Your task to perform on an android device: Find coffee shops on Maps Image 0: 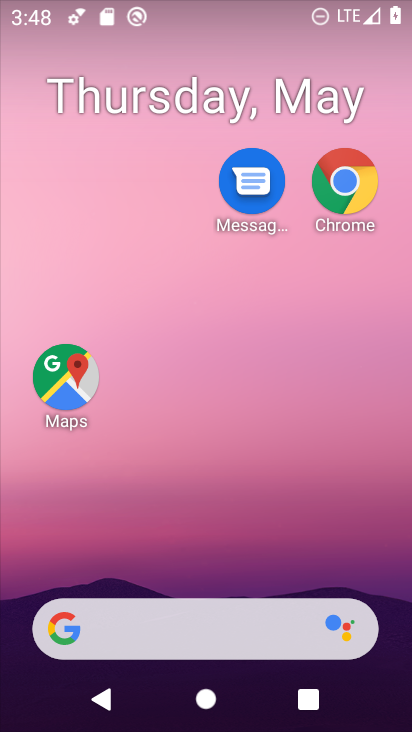
Step 0: drag from (286, 603) to (281, 4)
Your task to perform on an android device: Find coffee shops on Maps Image 1: 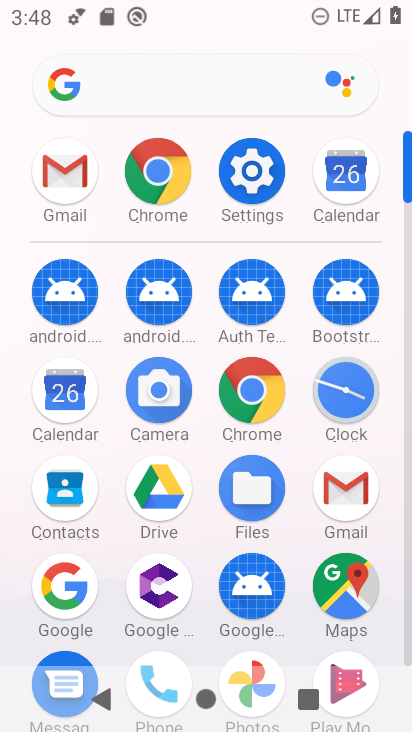
Step 1: click (351, 579)
Your task to perform on an android device: Find coffee shops on Maps Image 2: 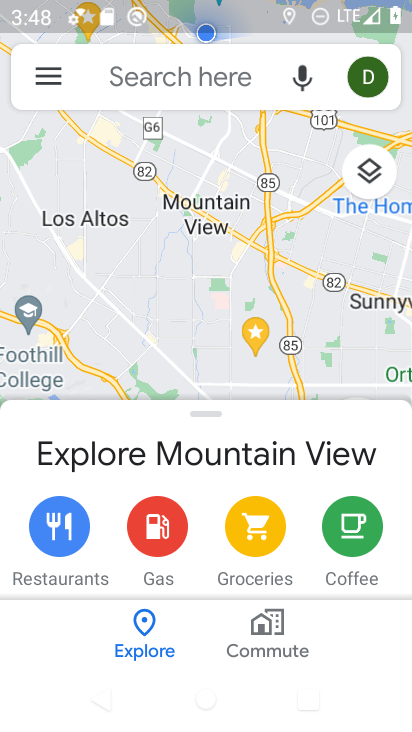
Step 2: click (200, 71)
Your task to perform on an android device: Find coffee shops on Maps Image 3: 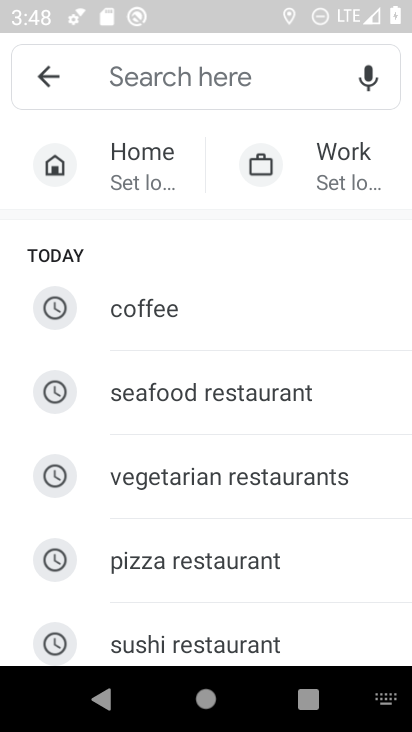
Step 3: type "coffee shops"
Your task to perform on an android device: Find coffee shops on Maps Image 4: 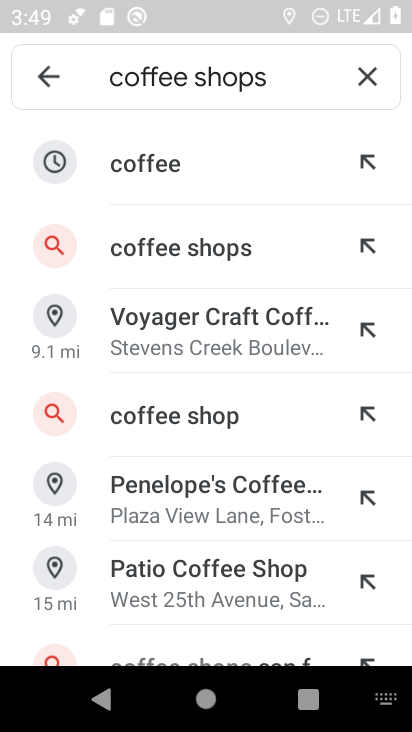
Step 4: click (258, 246)
Your task to perform on an android device: Find coffee shops on Maps Image 5: 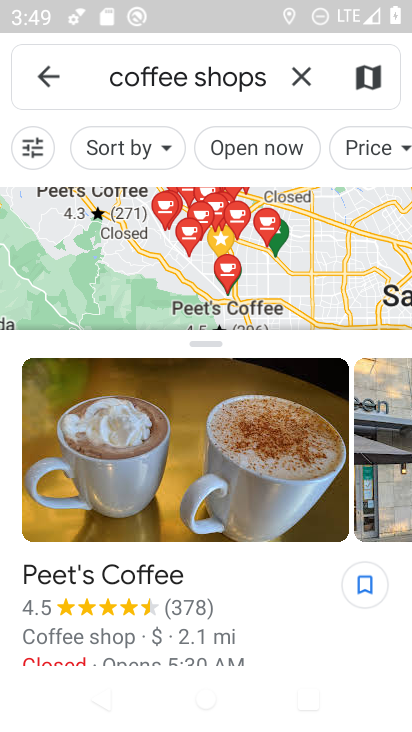
Step 5: task complete